Your task to perform on an android device: Open calendar and show me the third week of next month Image 0: 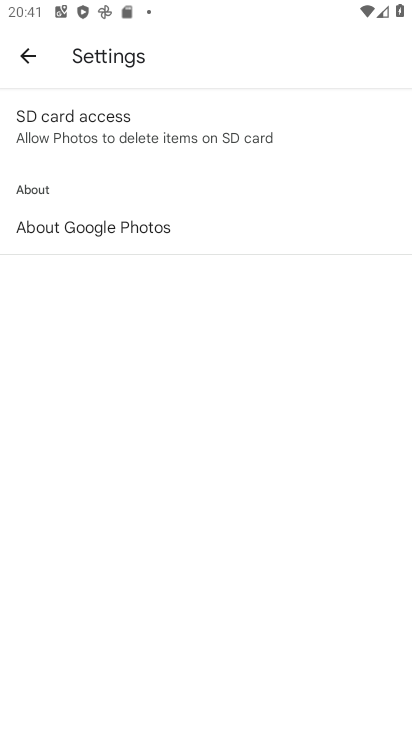
Step 0: press home button
Your task to perform on an android device: Open calendar and show me the third week of next month Image 1: 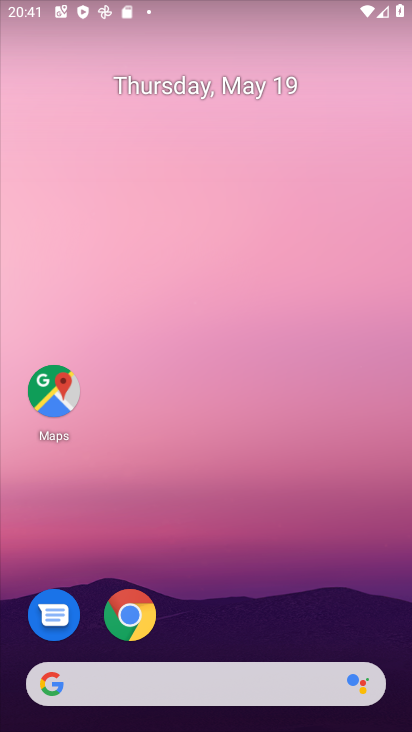
Step 1: drag from (251, 587) to (289, 145)
Your task to perform on an android device: Open calendar and show me the third week of next month Image 2: 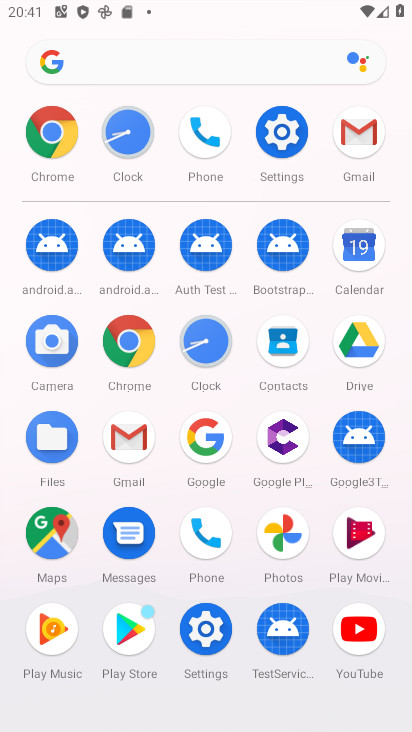
Step 2: click (358, 246)
Your task to perform on an android device: Open calendar and show me the third week of next month Image 3: 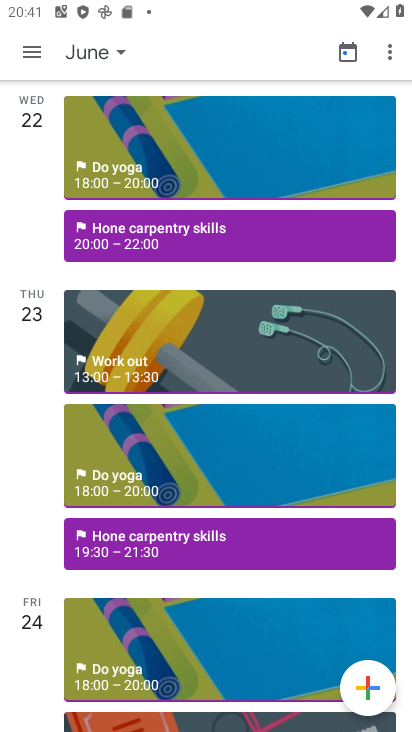
Step 3: click (113, 50)
Your task to perform on an android device: Open calendar and show me the third week of next month Image 4: 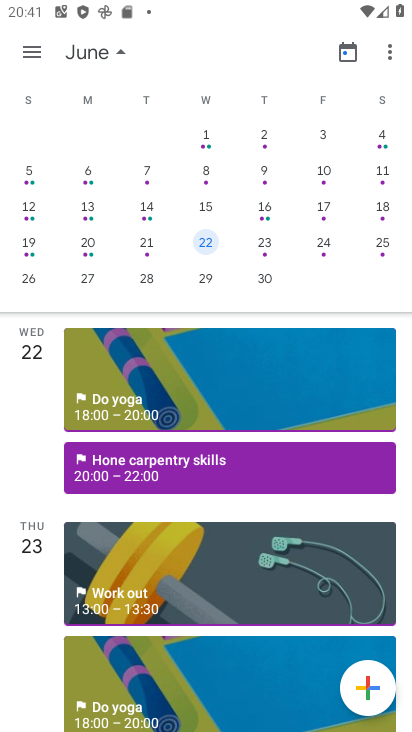
Step 4: click (207, 199)
Your task to perform on an android device: Open calendar and show me the third week of next month Image 5: 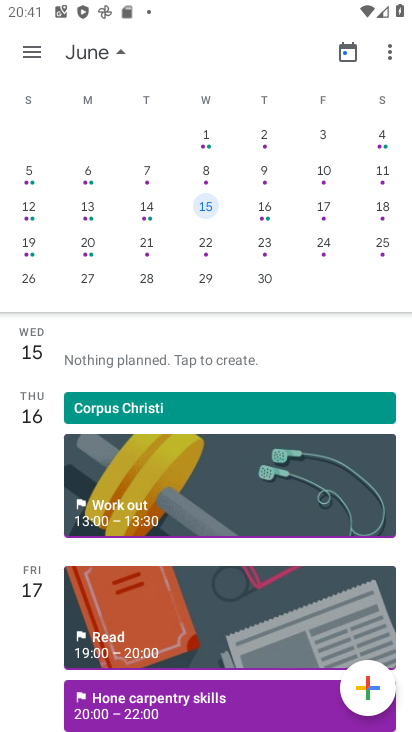
Step 5: task complete